Your task to perform on an android device: change notifications settings Image 0: 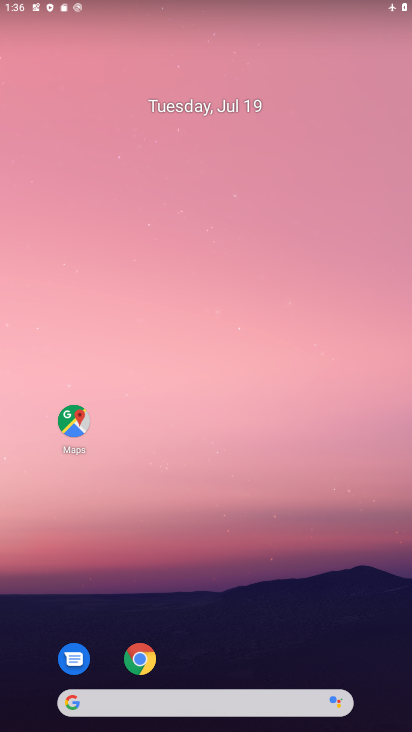
Step 0: press home button
Your task to perform on an android device: change notifications settings Image 1: 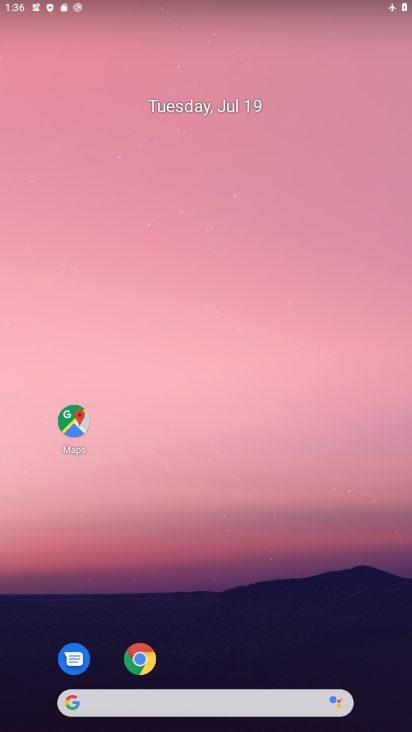
Step 1: drag from (238, 653) to (317, 103)
Your task to perform on an android device: change notifications settings Image 2: 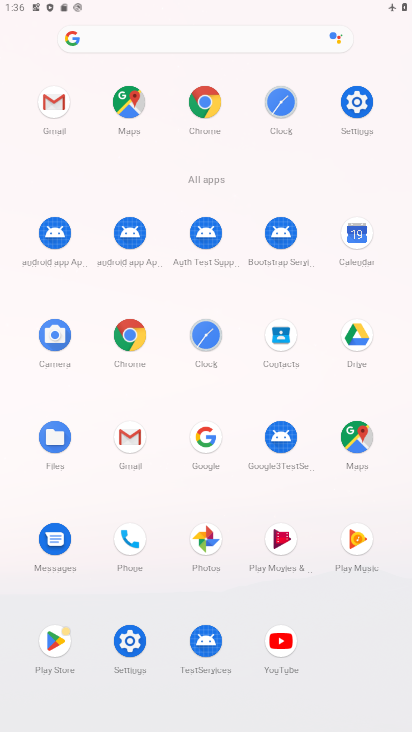
Step 2: click (131, 639)
Your task to perform on an android device: change notifications settings Image 3: 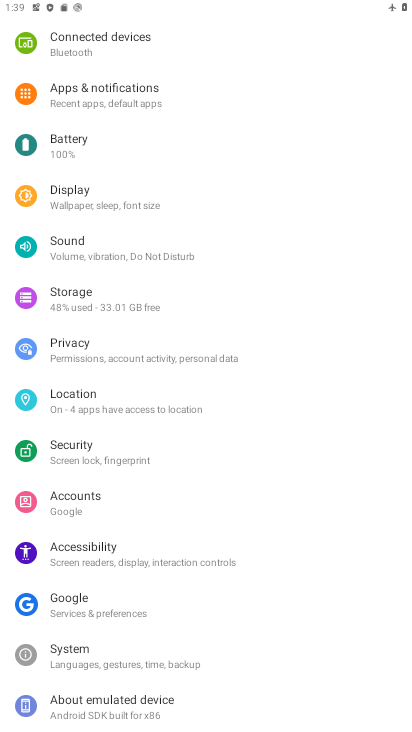
Step 3: click (77, 105)
Your task to perform on an android device: change notifications settings Image 4: 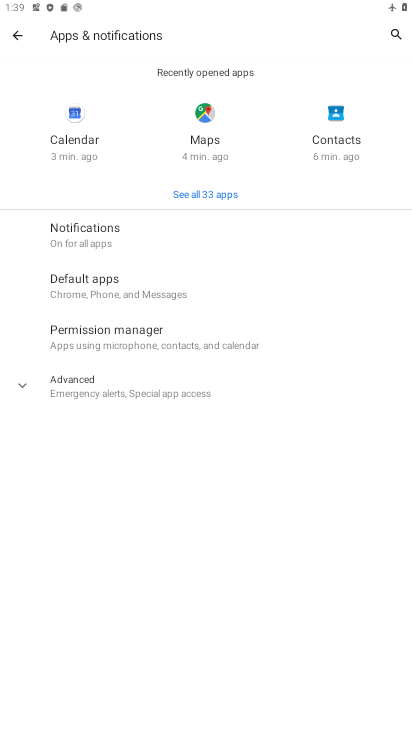
Step 4: click (119, 241)
Your task to perform on an android device: change notifications settings Image 5: 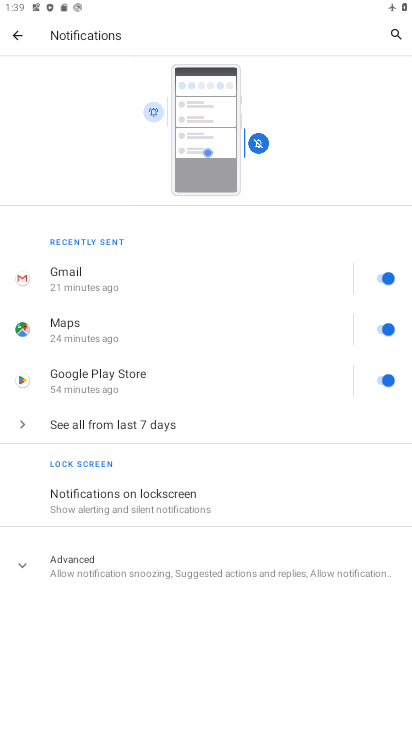
Step 5: click (139, 566)
Your task to perform on an android device: change notifications settings Image 6: 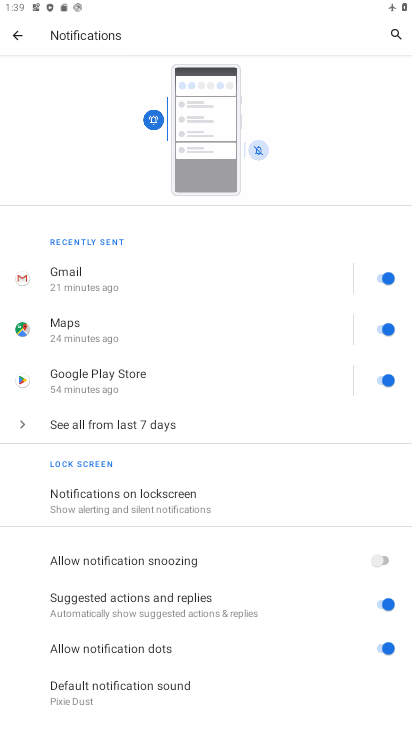
Step 6: click (320, 604)
Your task to perform on an android device: change notifications settings Image 7: 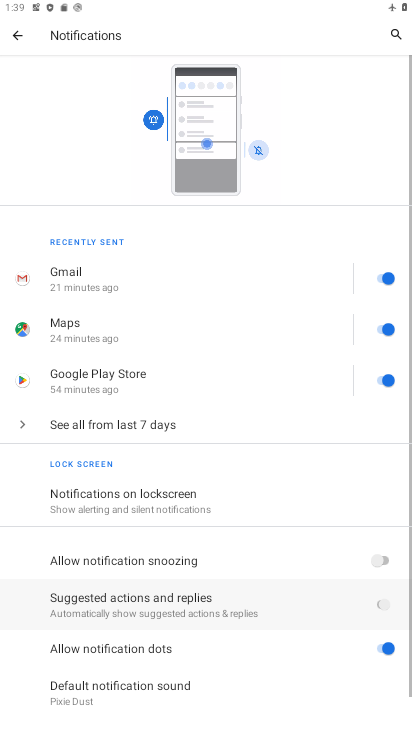
Step 7: click (320, 641)
Your task to perform on an android device: change notifications settings Image 8: 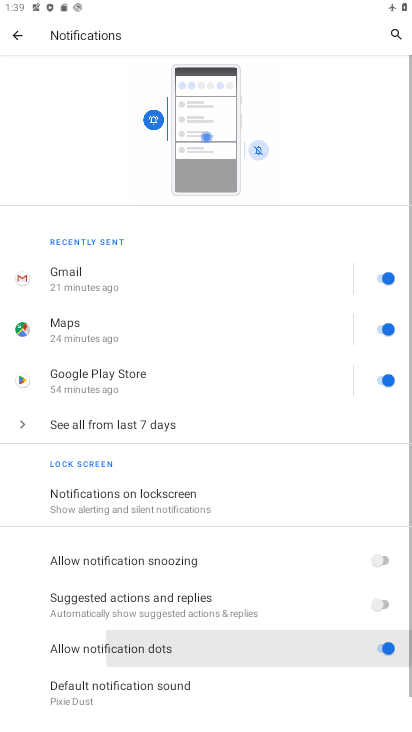
Step 8: drag from (320, 661) to (319, 284)
Your task to perform on an android device: change notifications settings Image 9: 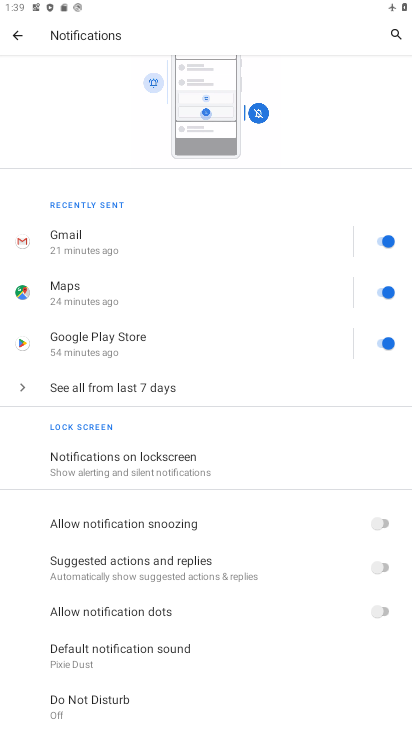
Step 9: click (254, 630)
Your task to perform on an android device: change notifications settings Image 10: 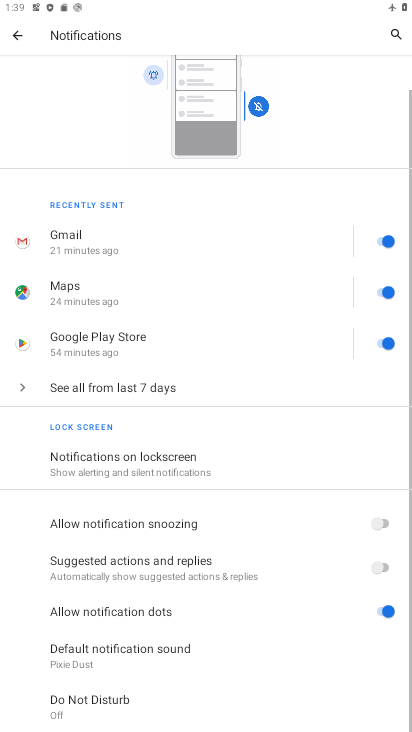
Step 10: task complete